Your task to perform on an android device: allow notifications from all sites in the chrome app Image 0: 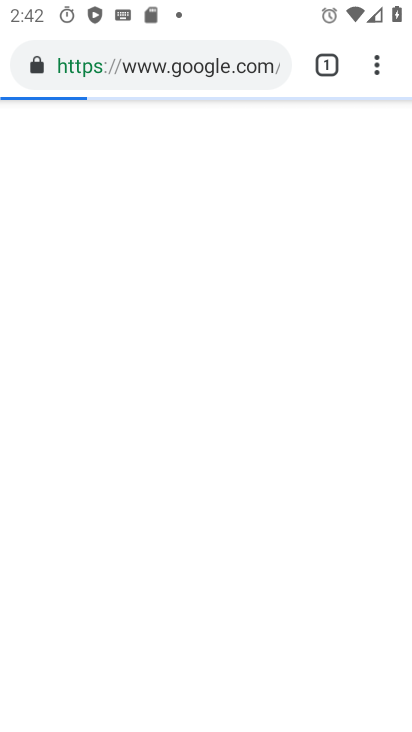
Step 0: press home button
Your task to perform on an android device: allow notifications from all sites in the chrome app Image 1: 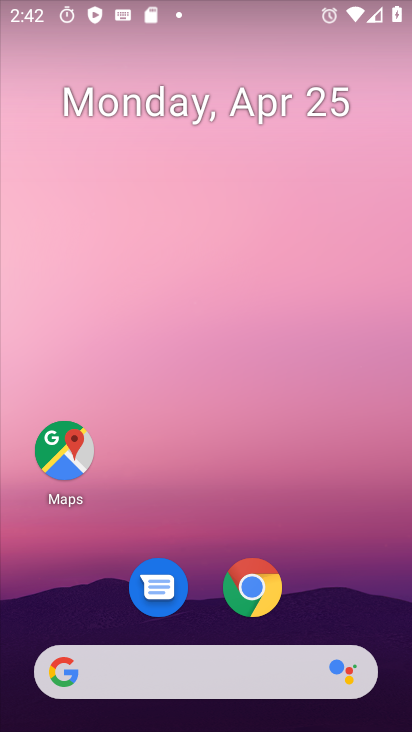
Step 1: drag from (309, 597) to (307, 23)
Your task to perform on an android device: allow notifications from all sites in the chrome app Image 2: 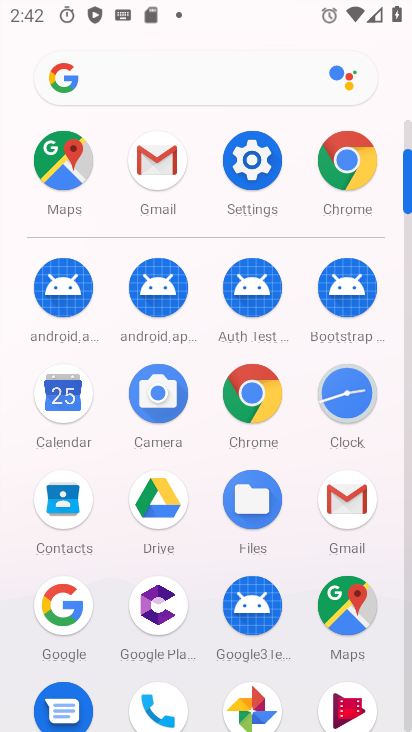
Step 2: click (239, 393)
Your task to perform on an android device: allow notifications from all sites in the chrome app Image 3: 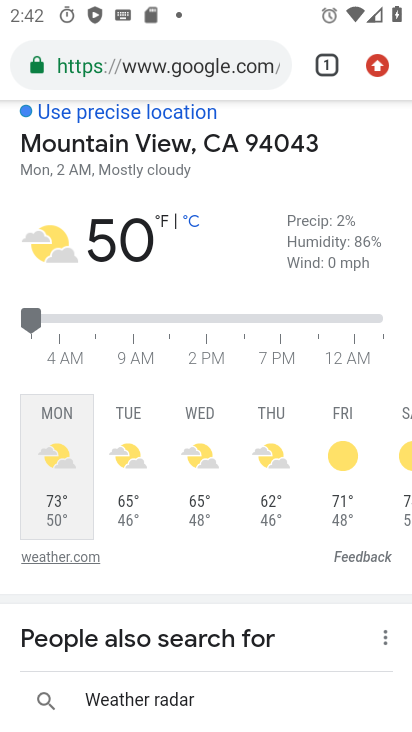
Step 3: click (396, 63)
Your task to perform on an android device: allow notifications from all sites in the chrome app Image 4: 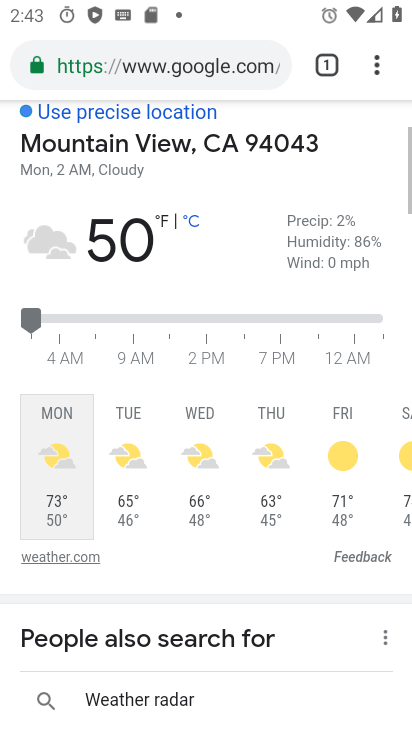
Step 4: drag from (380, 63) to (207, 640)
Your task to perform on an android device: allow notifications from all sites in the chrome app Image 5: 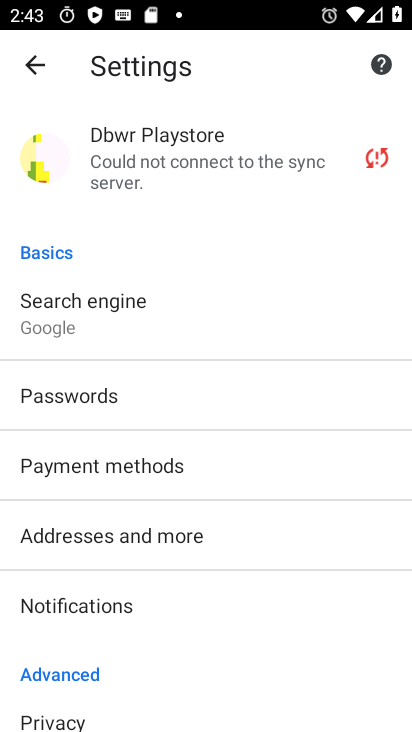
Step 5: click (117, 593)
Your task to perform on an android device: allow notifications from all sites in the chrome app Image 6: 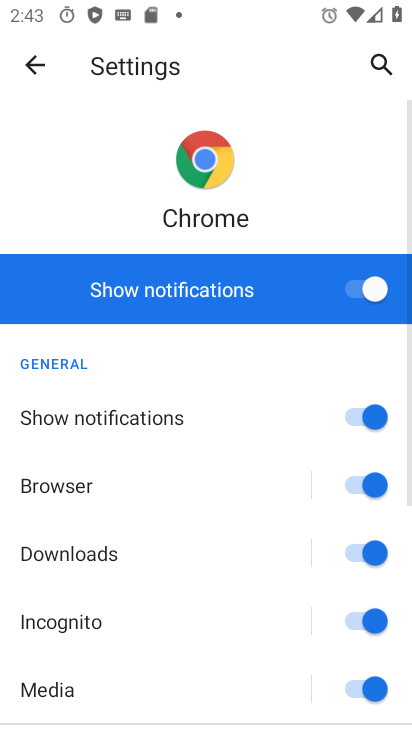
Step 6: task complete